Your task to perform on an android device: Open calendar and show me the first week of next month Image 0: 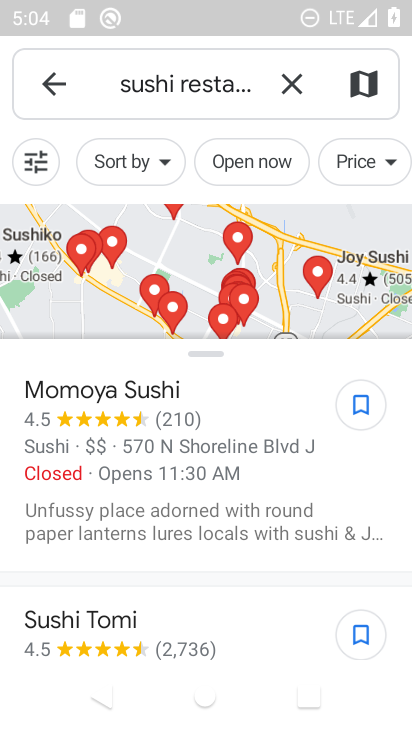
Step 0: press back button
Your task to perform on an android device: Open calendar and show me the first week of next month Image 1: 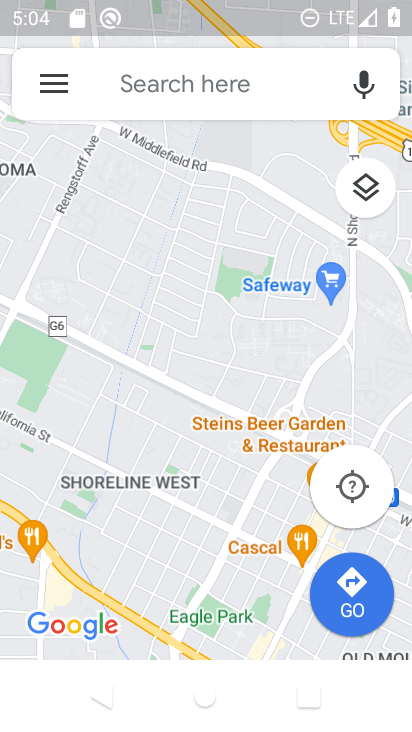
Step 1: press back button
Your task to perform on an android device: Open calendar and show me the first week of next month Image 2: 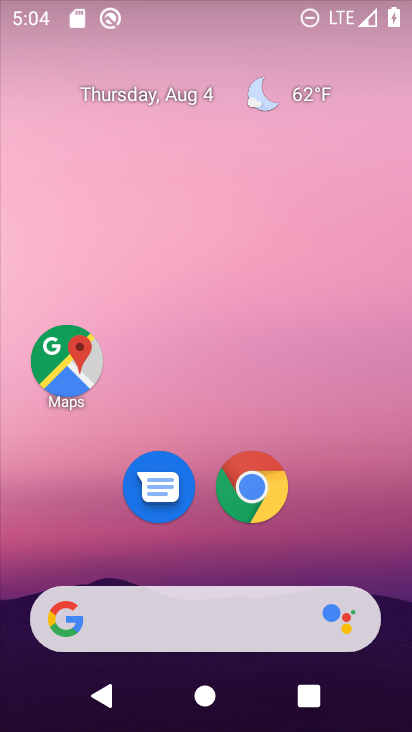
Step 2: drag from (187, 489) to (260, 53)
Your task to perform on an android device: Open calendar and show me the first week of next month Image 3: 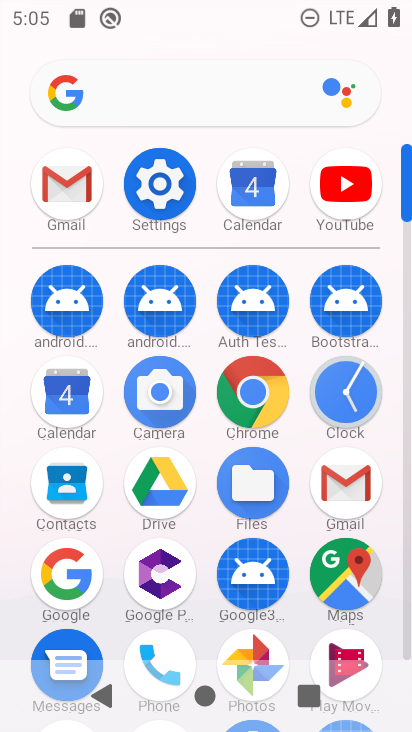
Step 3: click (49, 401)
Your task to perform on an android device: Open calendar and show me the first week of next month Image 4: 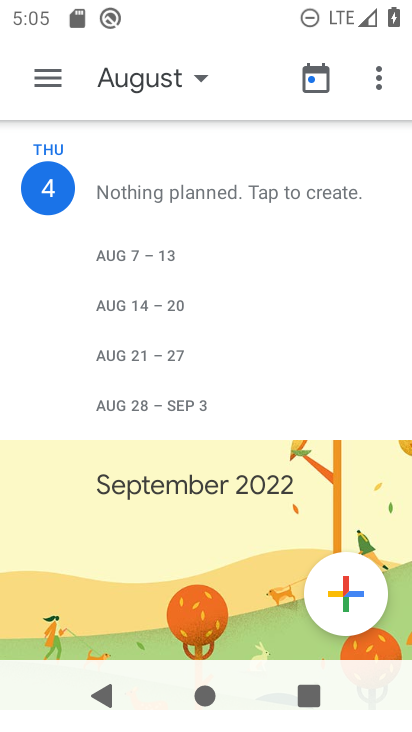
Step 4: click (191, 76)
Your task to perform on an android device: Open calendar and show me the first week of next month Image 5: 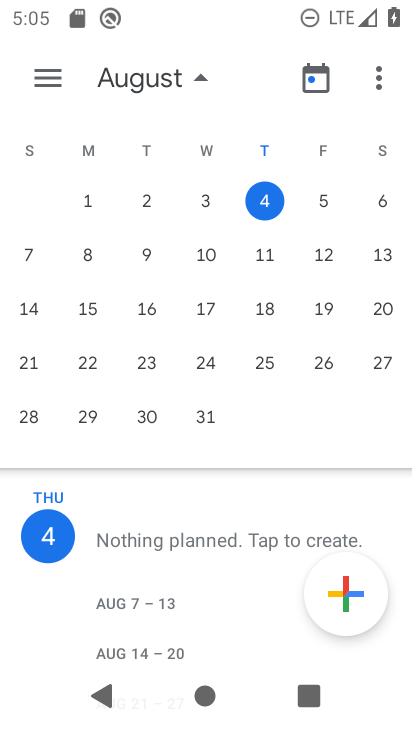
Step 5: drag from (381, 259) to (39, 262)
Your task to perform on an android device: Open calendar and show me the first week of next month Image 6: 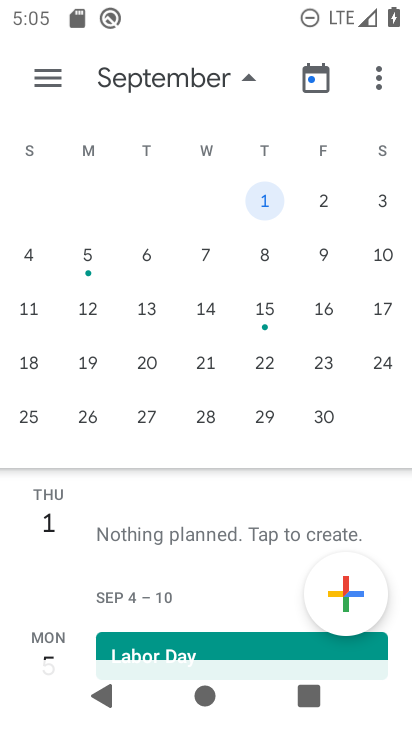
Step 6: click (271, 200)
Your task to perform on an android device: Open calendar and show me the first week of next month Image 7: 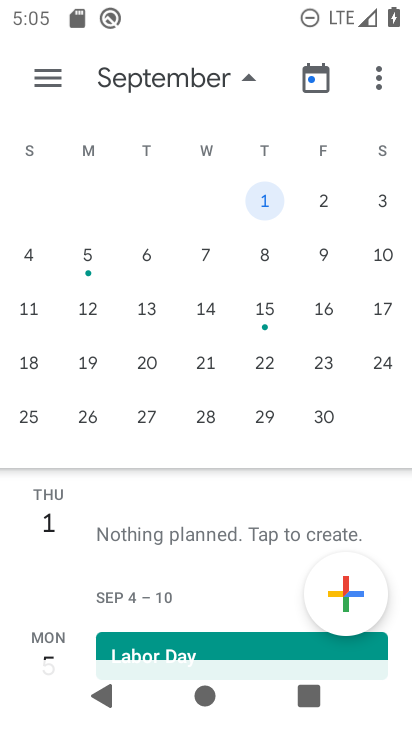
Step 7: task complete